Your task to perform on an android device: Open Google Image 0: 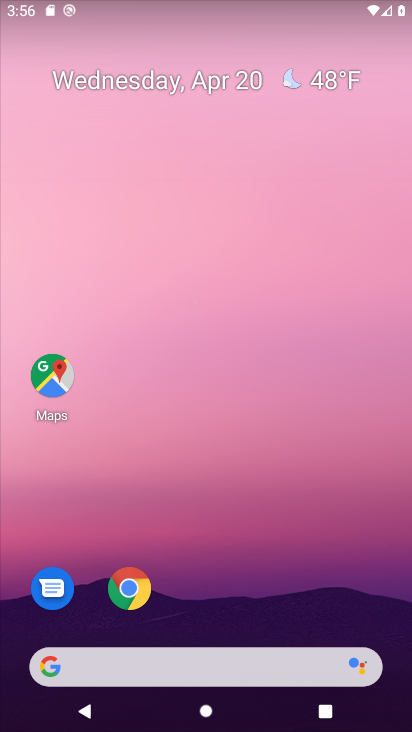
Step 0: drag from (326, 584) to (354, 198)
Your task to perform on an android device: Open Google Image 1: 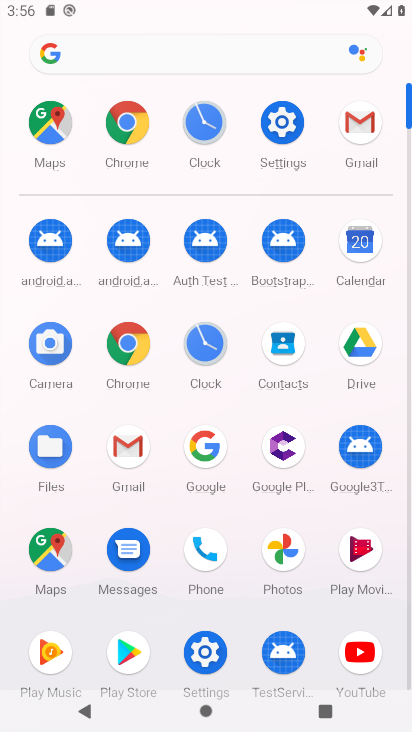
Step 1: click (205, 458)
Your task to perform on an android device: Open Google Image 2: 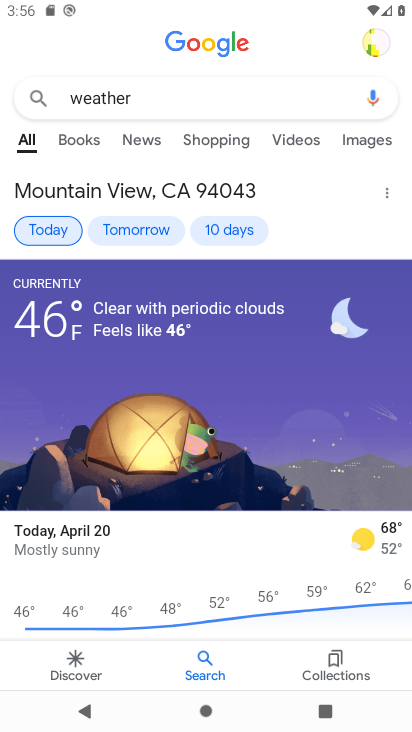
Step 2: task complete